Your task to perform on an android device: remove spam from my inbox in the gmail app Image 0: 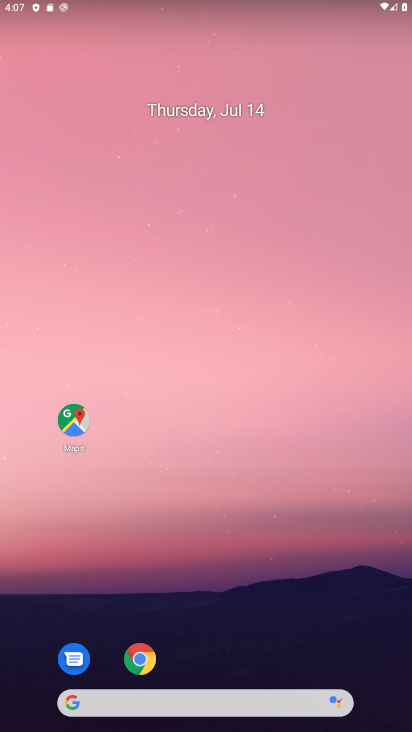
Step 0: drag from (296, 413) to (238, 73)
Your task to perform on an android device: remove spam from my inbox in the gmail app Image 1: 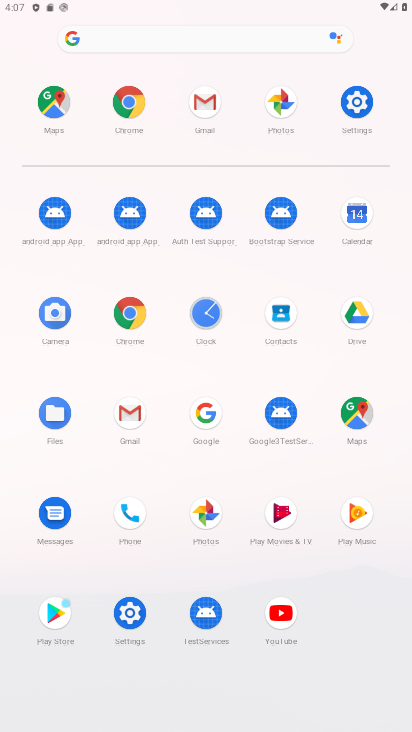
Step 1: click (128, 413)
Your task to perform on an android device: remove spam from my inbox in the gmail app Image 2: 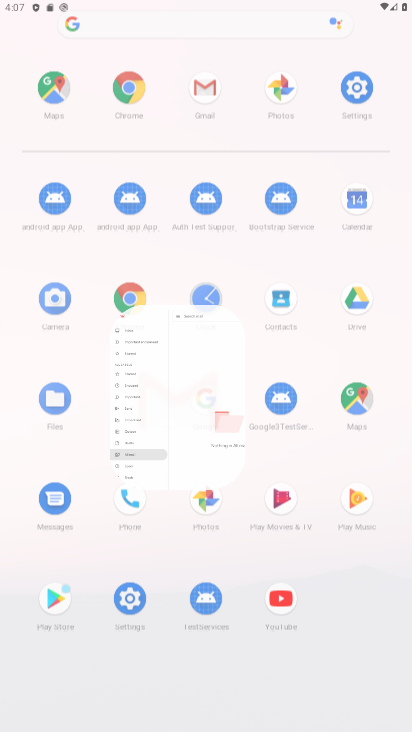
Step 2: click (136, 417)
Your task to perform on an android device: remove spam from my inbox in the gmail app Image 3: 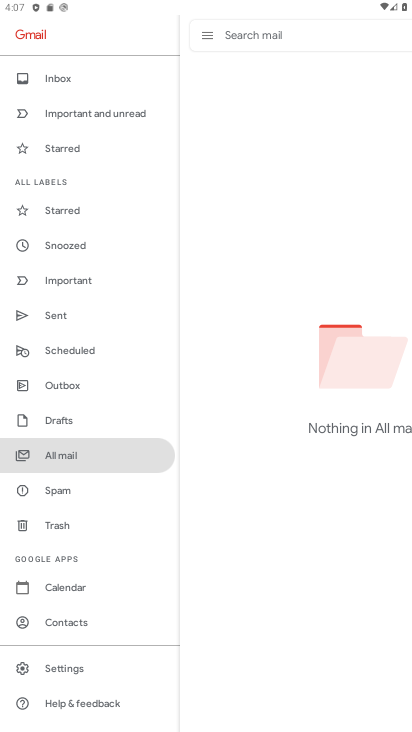
Step 3: click (50, 490)
Your task to perform on an android device: remove spam from my inbox in the gmail app Image 4: 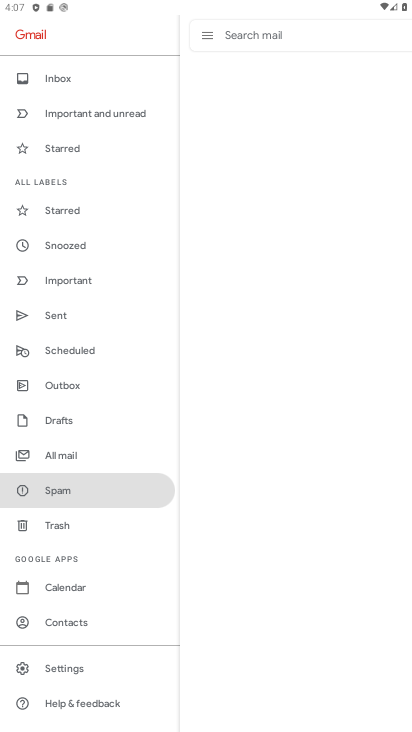
Step 4: click (53, 475)
Your task to perform on an android device: remove spam from my inbox in the gmail app Image 5: 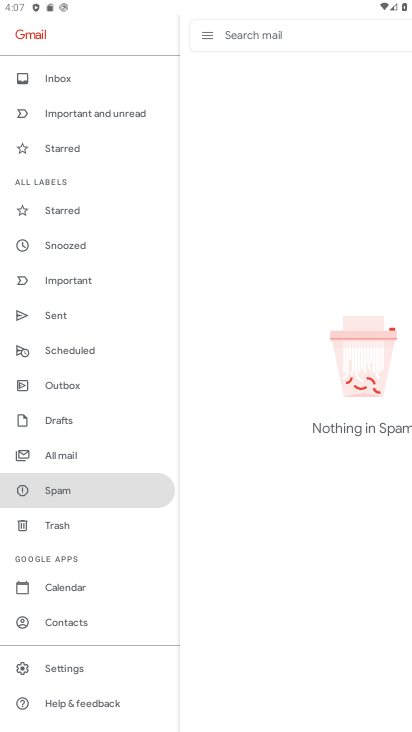
Step 5: click (57, 486)
Your task to perform on an android device: remove spam from my inbox in the gmail app Image 6: 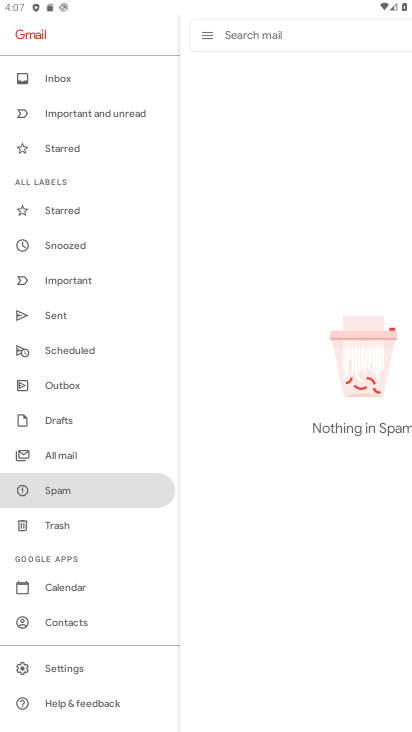
Step 6: task complete